Your task to perform on an android device: add a contact Image 0: 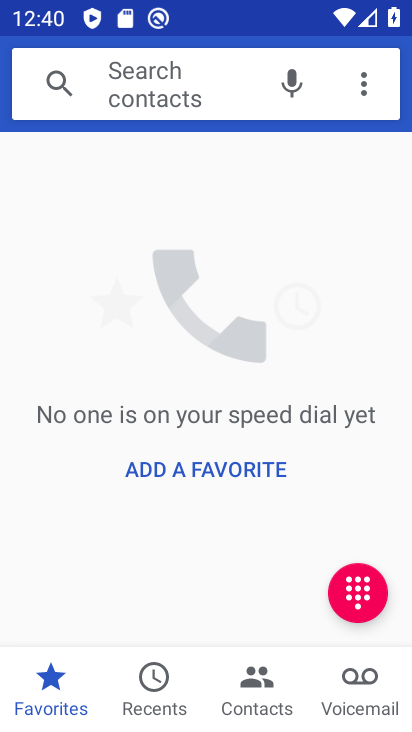
Step 0: click (262, 692)
Your task to perform on an android device: add a contact Image 1: 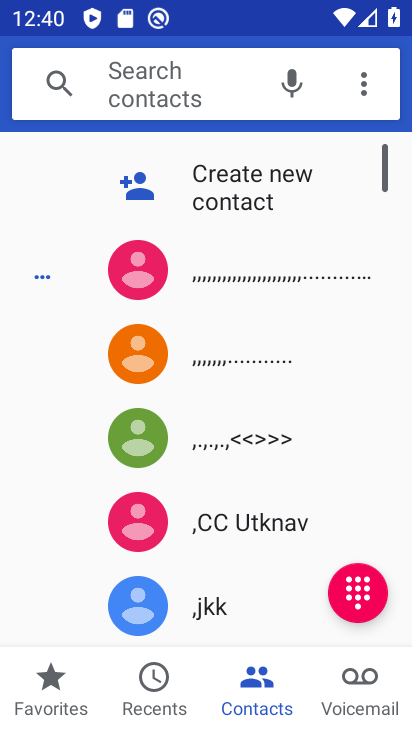
Step 1: click (359, 594)
Your task to perform on an android device: add a contact Image 2: 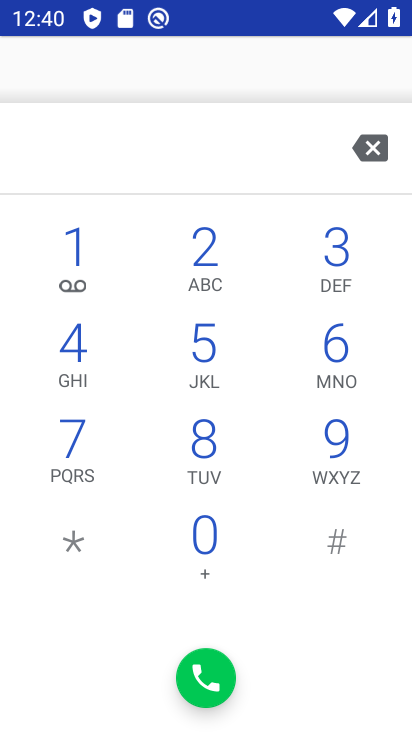
Step 2: click (85, 424)
Your task to perform on an android device: add a contact Image 3: 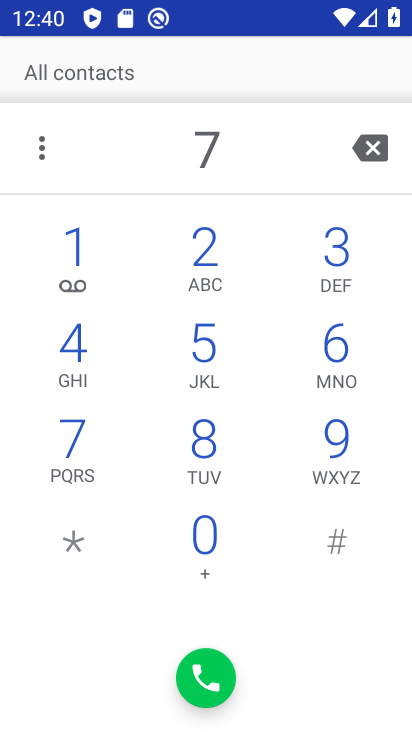
Step 3: click (200, 446)
Your task to perform on an android device: add a contact Image 4: 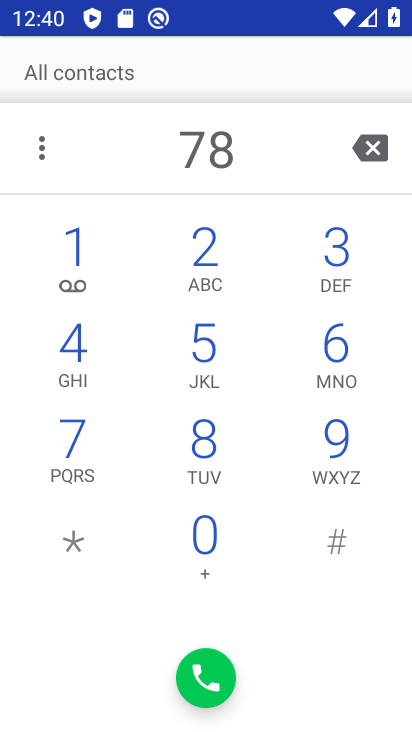
Step 4: click (83, 245)
Your task to perform on an android device: add a contact Image 5: 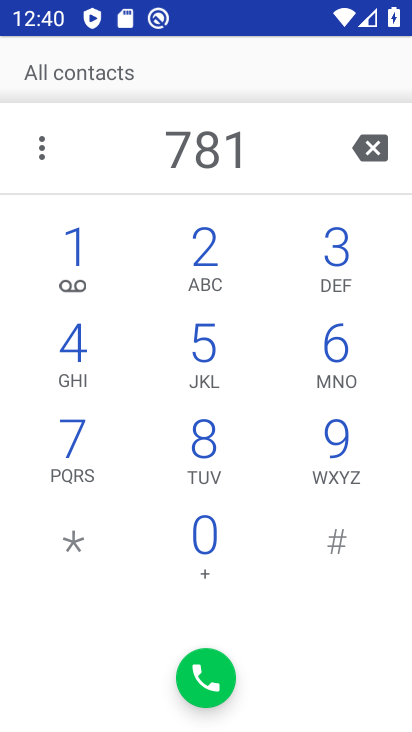
Step 5: click (82, 341)
Your task to perform on an android device: add a contact Image 6: 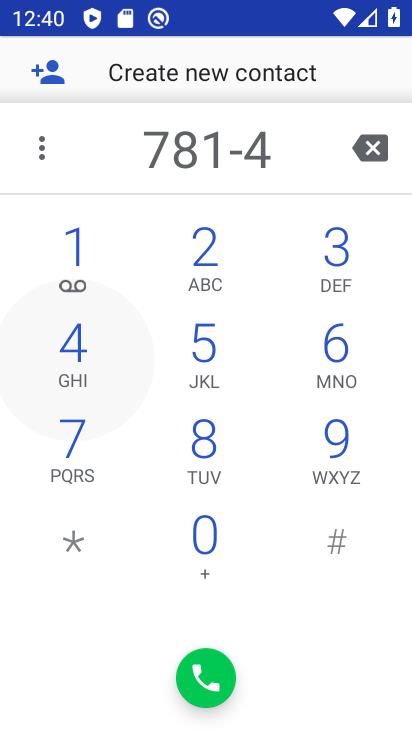
Step 6: click (211, 345)
Your task to perform on an android device: add a contact Image 7: 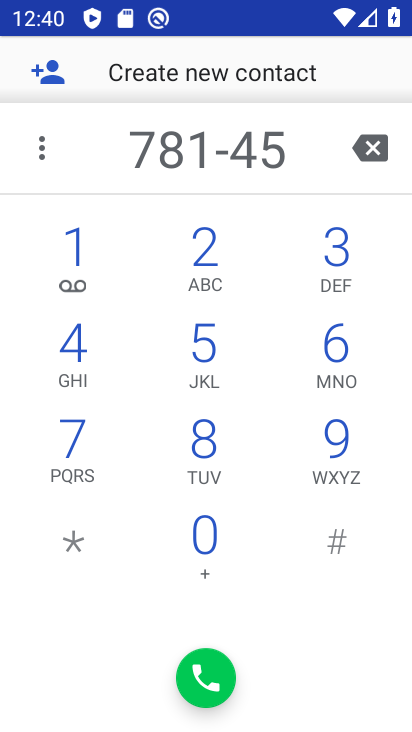
Step 7: click (338, 340)
Your task to perform on an android device: add a contact Image 8: 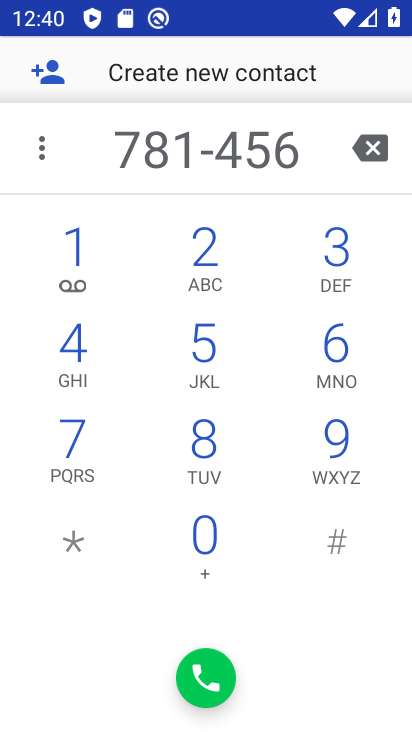
Step 8: click (343, 433)
Your task to perform on an android device: add a contact Image 9: 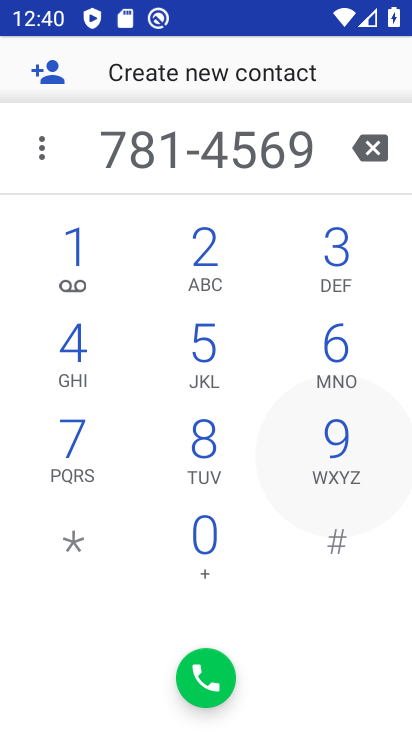
Step 9: click (218, 435)
Your task to perform on an android device: add a contact Image 10: 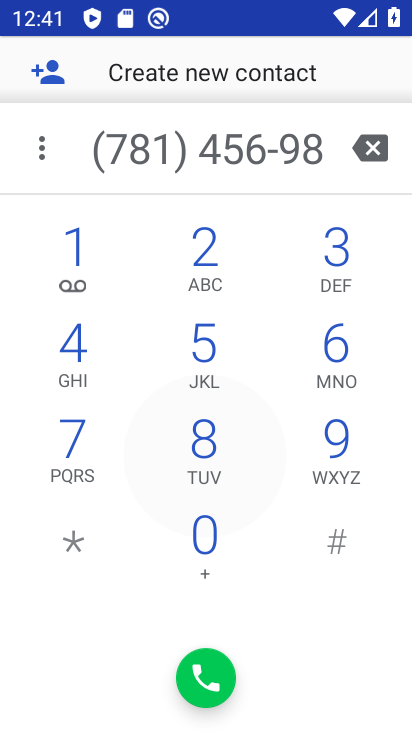
Step 10: click (204, 521)
Your task to perform on an android device: add a contact Image 11: 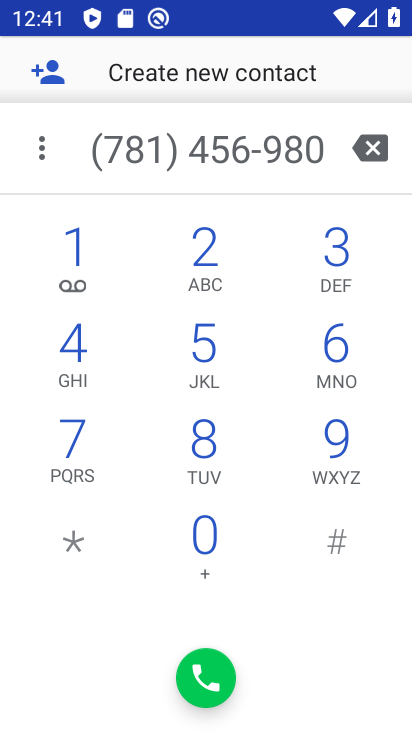
Step 11: click (198, 258)
Your task to perform on an android device: add a contact Image 12: 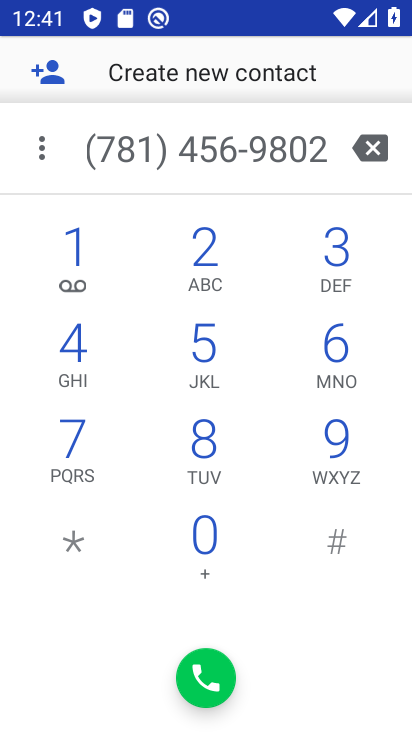
Step 12: click (230, 76)
Your task to perform on an android device: add a contact Image 13: 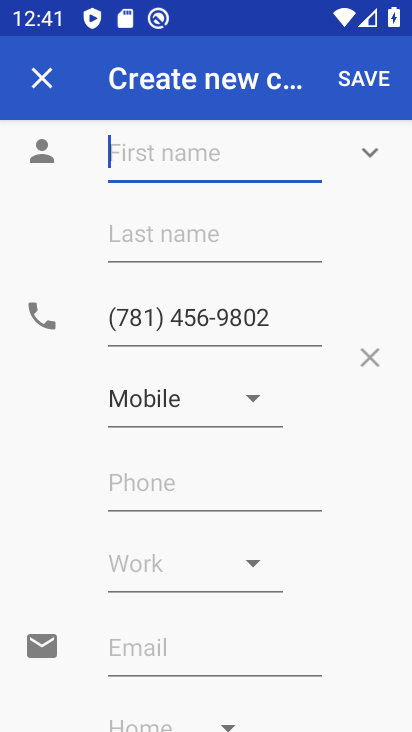
Step 13: type "peiya"
Your task to perform on an android device: add a contact Image 14: 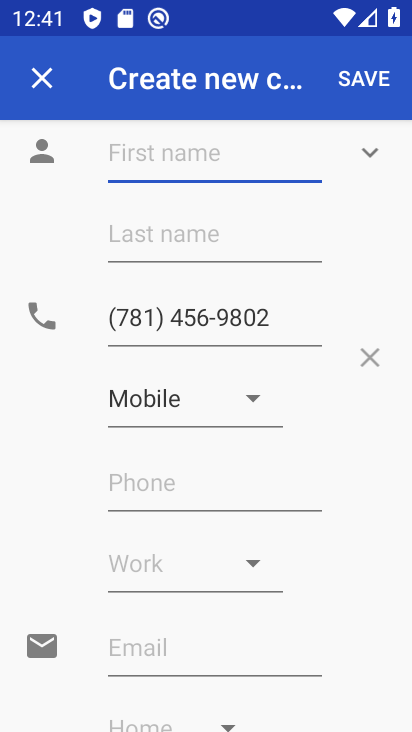
Step 14: click (148, 235)
Your task to perform on an android device: add a contact Image 15: 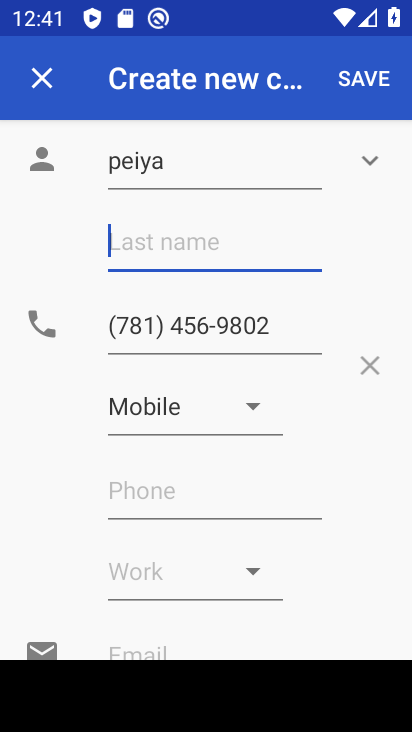
Step 15: type "jii"
Your task to perform on an android device: add a contact Image 16: 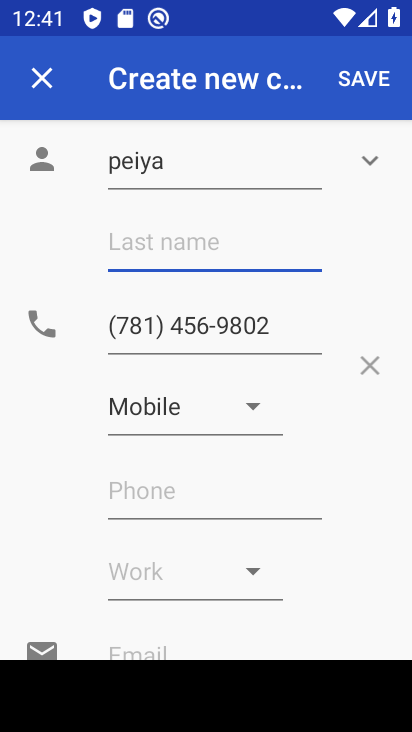
Step 16: click (376, 74)
Your task to perform on an android device: add a contact Image 17: 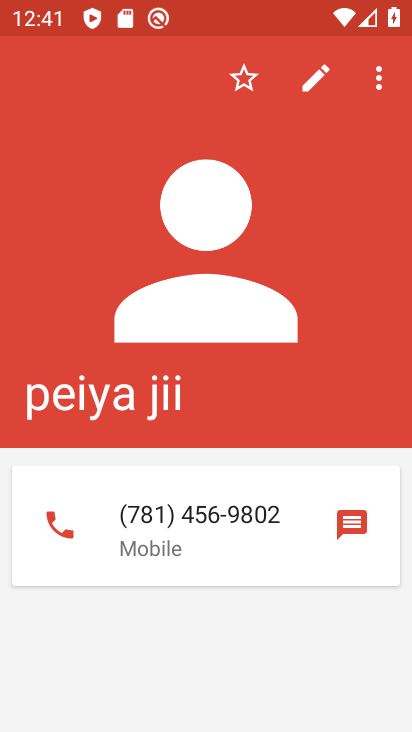
Step 17: task complete